Your task to perform on an android device: turn off improve location accuracy Image 0: 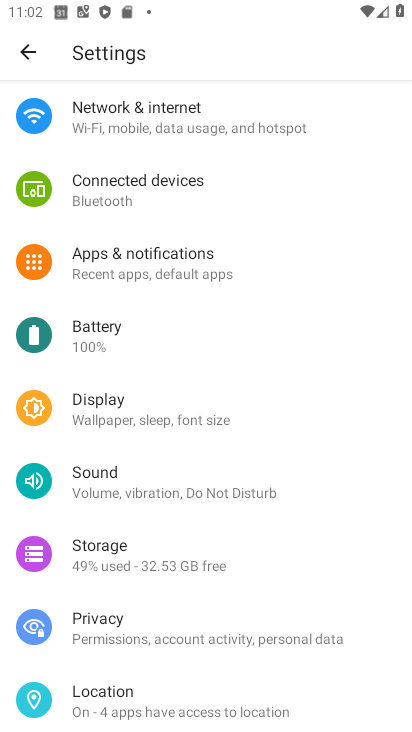
Step 0: click (105, 717)
Your task to perform on an android device: turn off improve location accuracy Image 1: 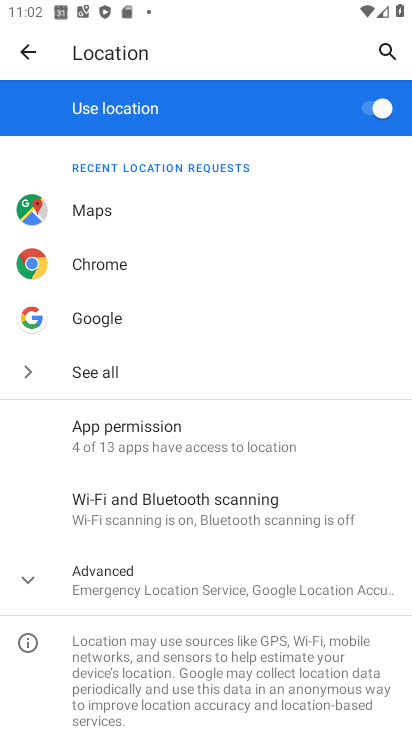
Step 1: click (159, 566)
Your task to perform on an android device: turn off improve location accuracy Image 2: 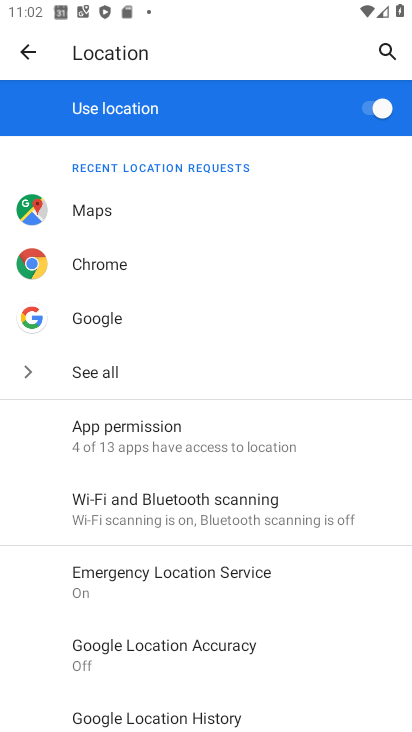
Step 2: click (256, 644)
Your task to perform on an android device: turn off improve location accuracy Image 3: 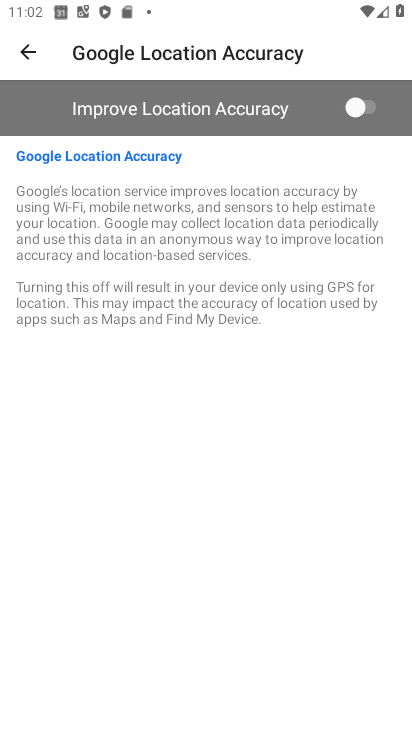
Step 3: task complete